Your task to perform on an android device: Open Youtube and go to the subscriptions tab Image 0: 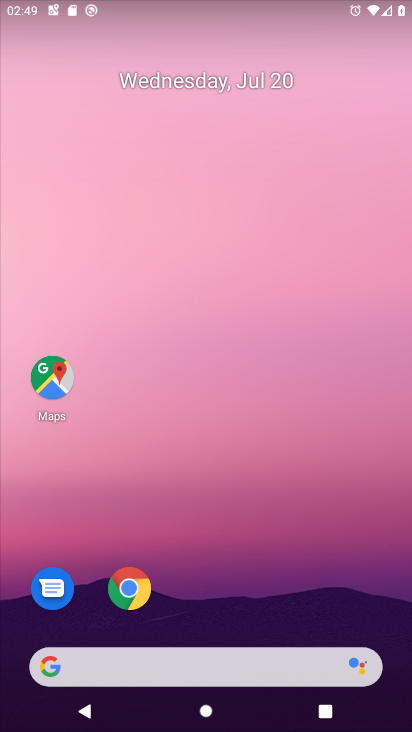
Step 0: drag from (299, 621) to (223, 204)
Your task to perform on an android device: Open Youtube and go to the subscriptions tab Image 1: 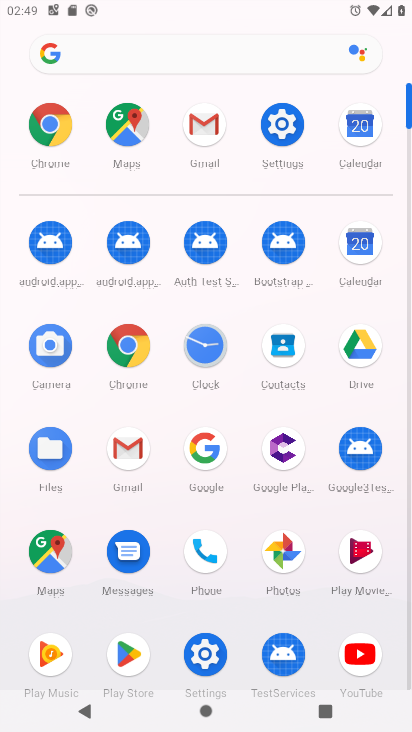
Step 1: click (366, 659)
Your task to perform on an android device: Open Youtube and go to the subscriptions tab Image 2: 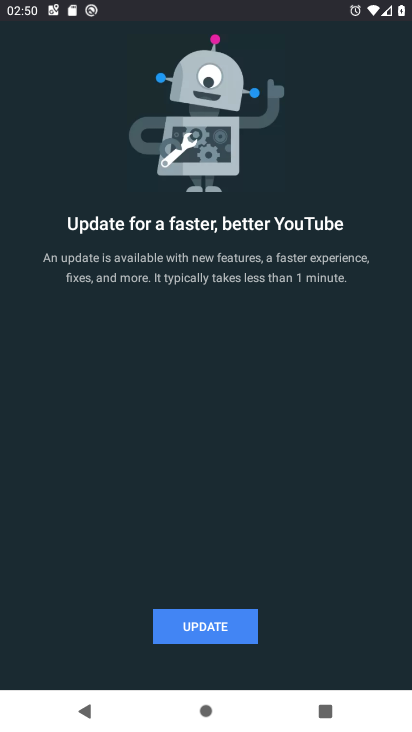
Step 2: task complete